Your task to perform on an android device: Go to Yahoo.com Image 0: 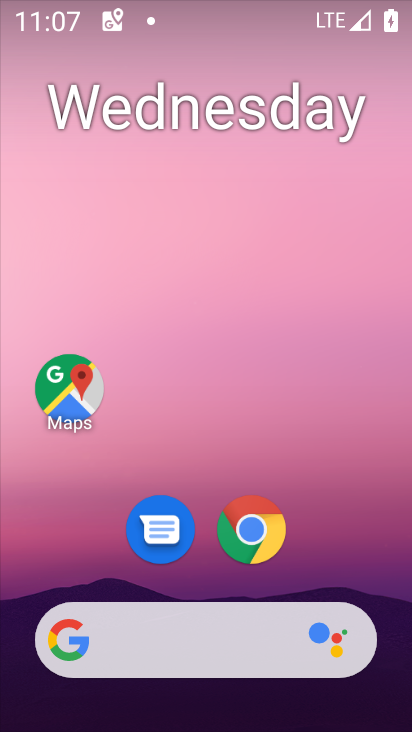
Step 0: click (254, 525)
Your task to perform on an android device: Go to Yahoo.com Image 1: 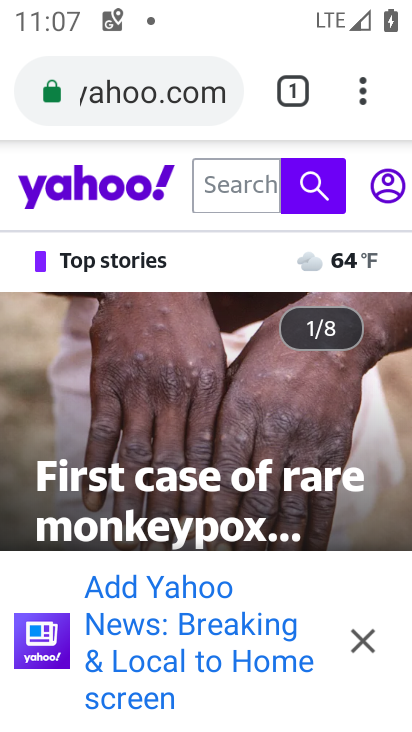
Step 1: task complete